Your task to perform on an android device: Open Google Image 0: 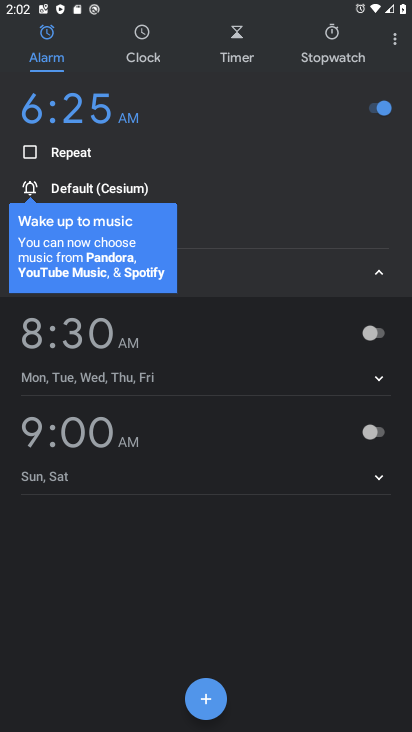
Step 0: press home button
Your task to perform on an android device: Open Google Image 1: 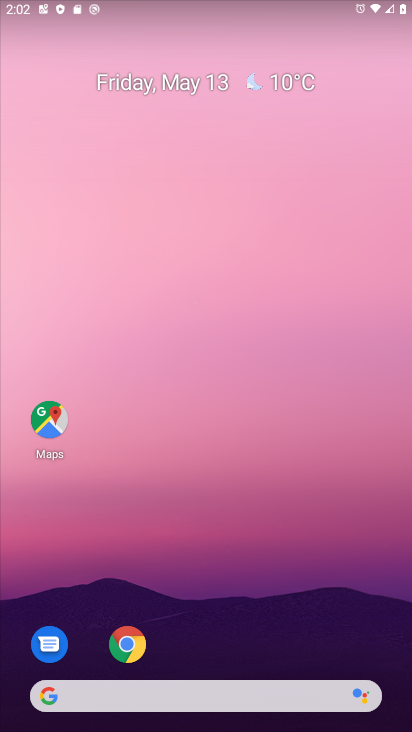
Step 1: drag from (196, 714) to (206, 98)
Your task to perform on an android device: Open Google Image 2: 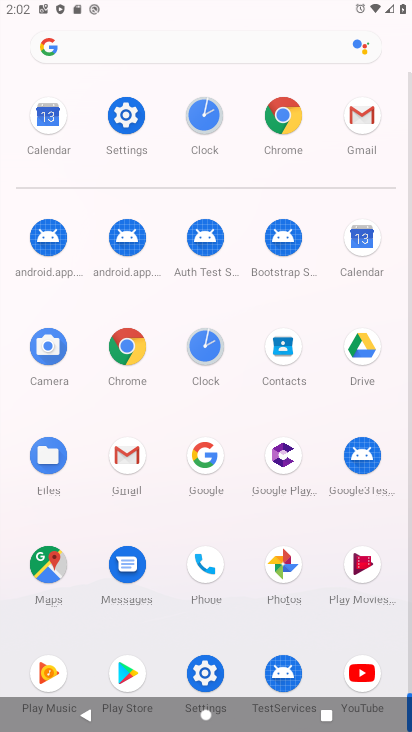
Step 2: click (206, 457)
Your task to perform on an android device: Open Google Image 3: 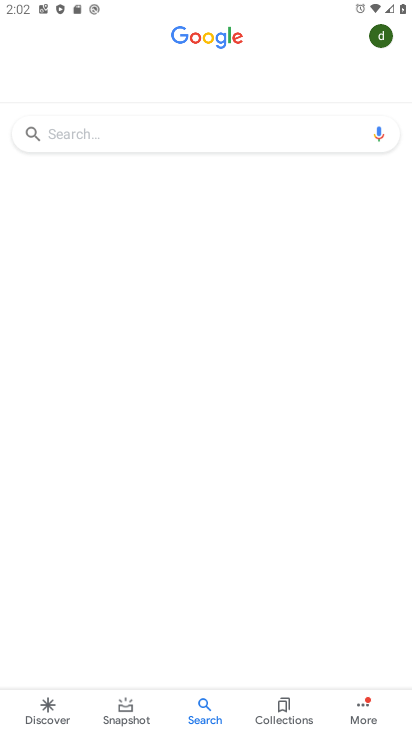
Step 3: task complete